Your task to perform on an android device: Open the phone app and click the voicemail tab. Image 0: 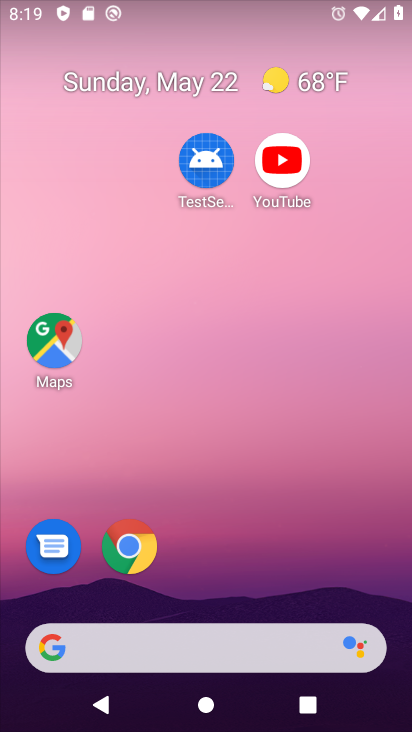
Step 0: drag from (246, 727) to (107, 10)
Your task to perform on an android device: Open the phone app and click the voicemail tab. Image 1: 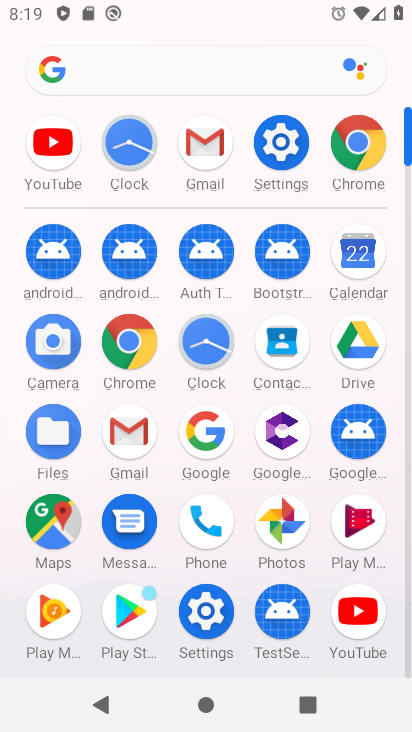
Step 1: click (189, 534)
Your task to perform on an android device: Open the phone app and click the voicemail tab. Image 2: 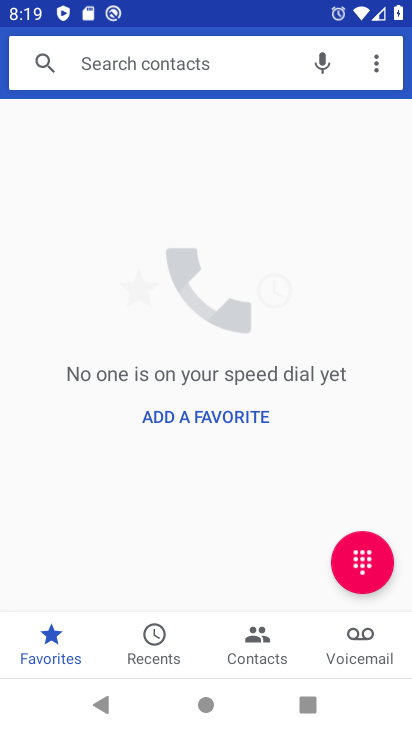
Step 2: click (350, 641)
Your task to perform on an android device: Open the phone app and click the voicemail tab. Image 3: 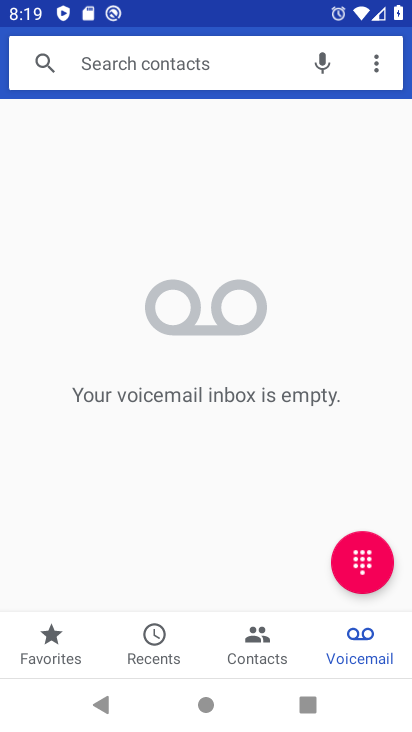
Step 3: task complete